Your task to perform on an android device: Search for 5 star sushi restaurants on Maps Image 0: 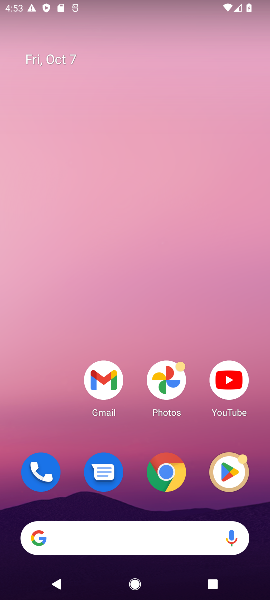
Step 0: drag from (193, 502) to (97, 196)
Your task to perform on an android device: Search for 5 star sushi restaurants on Maps Image 1: 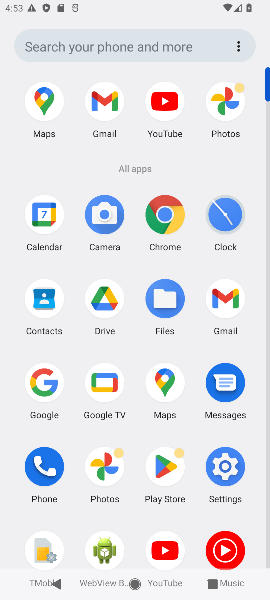
Step 1: click (166, 387)
Your task to perform on an android device: Search for 5 star sushi restaurants on Maps Image 2: 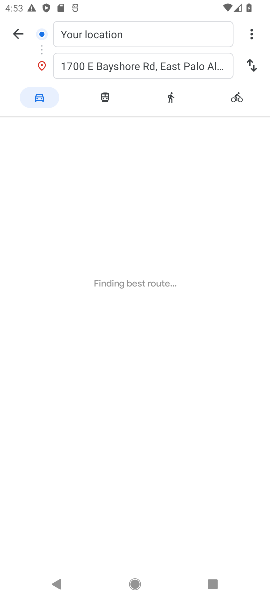
Step 2: click (17, 32)
Your task to perform on an android device: Search for 5 star sushi restaurants on Maps Image 3: 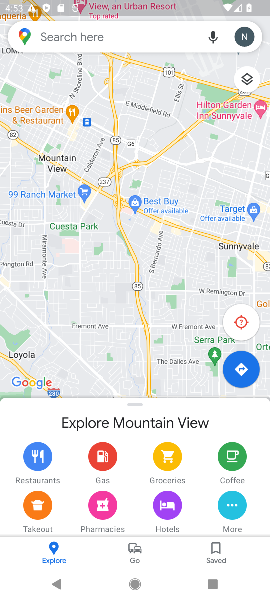
Step 3: click (79, 38)
Your task to perform on an android device: Search for 5 star sushi restaurants on Maps Image 4: 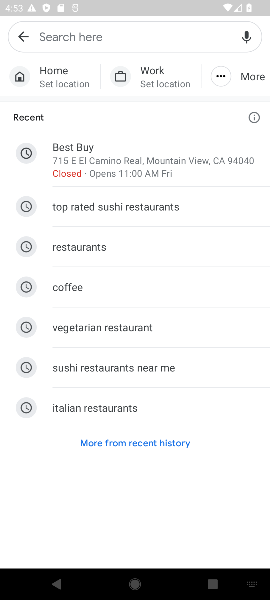
Step 4: type "5 star sushi restaurants"
Your task to perform on an android device: Search for 5 star sushi restaurants on Maps Image 5: 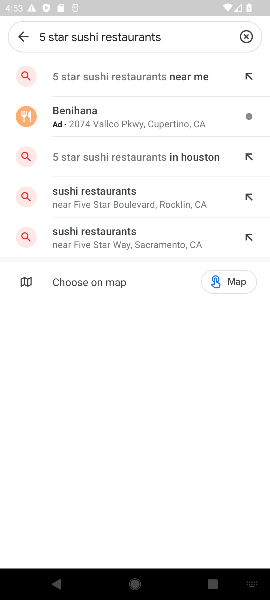
Step 5: press enter
Your task to perform on an android device: Search for 5 star sushi restaurants on Maps Image 6: 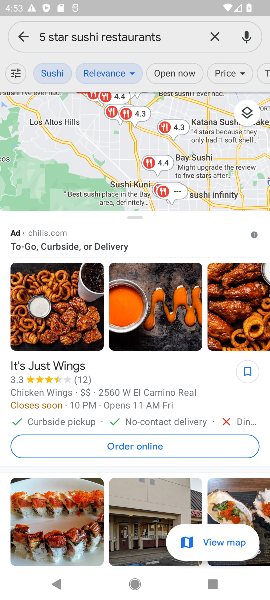
Step 6: drag from (138, 83) to (8, 86)
Your task to perform on an android device: Search for 5 star sushi restaurants on Maps Image 7: 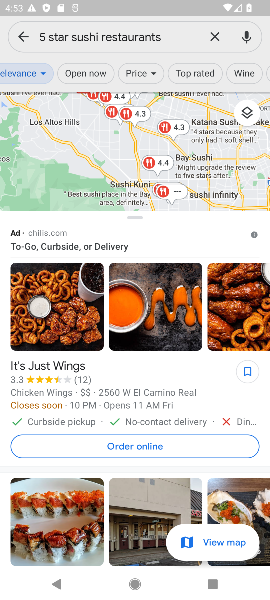
Step 7: drag from (212, 83) to (78, 94)
Your task to perform on an android device: Search for 5 star sushi restaurants on Maps Image 8: 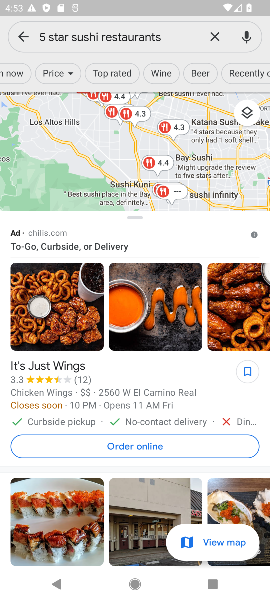
Step 8: drag from (203, 83) to (40, 83)
Your task to perform on an android device: Search for 5 star sushi restaurants on Maps Image 9: 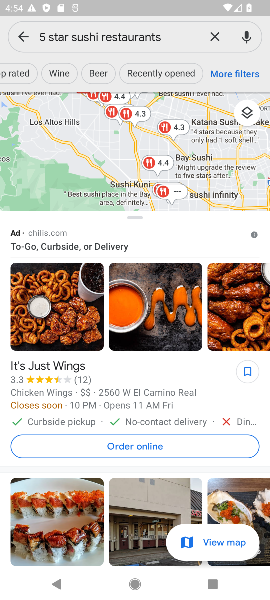
Step 9: click (236, 71)
Your task to perform on an android device: Search for 5 star sushi restaurants on Maps Image 10: 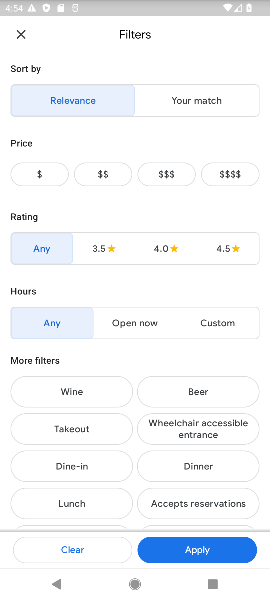
Step 10: drag from (221, 276) to (227, 116)
Your task to perform on an android device: Search for 5 star sushi restaurants on Maps Image 11: 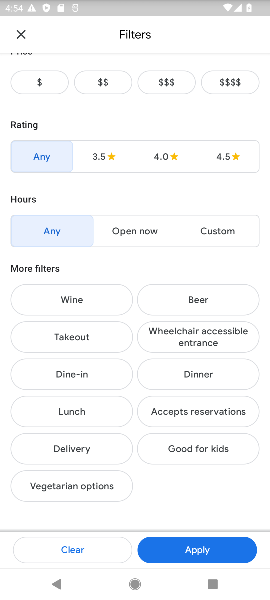
Step 11: drag from (140, 409) to (139, 277)
Your task to perform on an android device: Search for 5 star sushi restaurants on Maps Image 12: 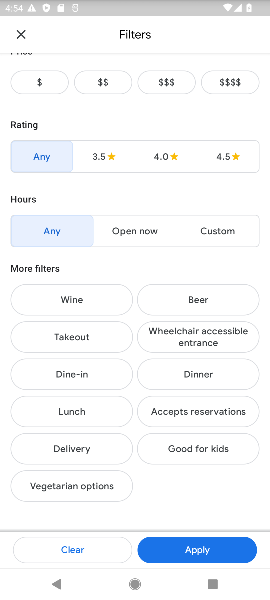
Step 12: drag from (232, 125) to (256, 397)
Your task to perform on an android device: Search for 5 star sushi restaurants on Maps Image 13: 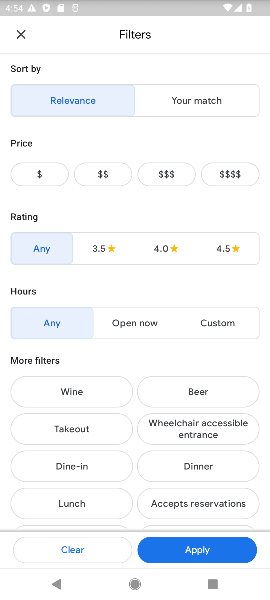
Step 13: click (22, 37)
Your task to perform on an android device: Search for 5 star sushi restaurants on Maps Image 14: 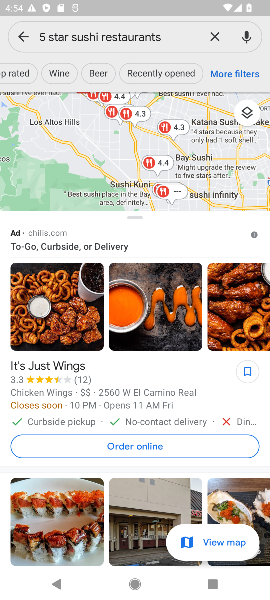
Step 14: task complete